Your task to perform on an android device: snooze an email in the gmail app Image 0: 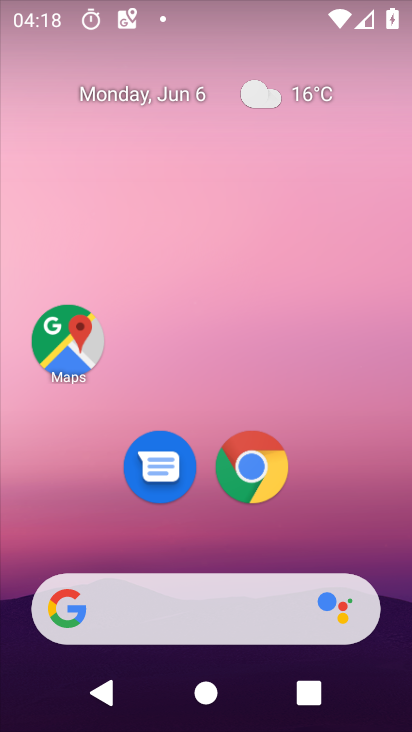
Step 0: drag from (215, 522) to (226, 18)
Your task to perform on an android device: snooze an email in the gmail app Image 1: 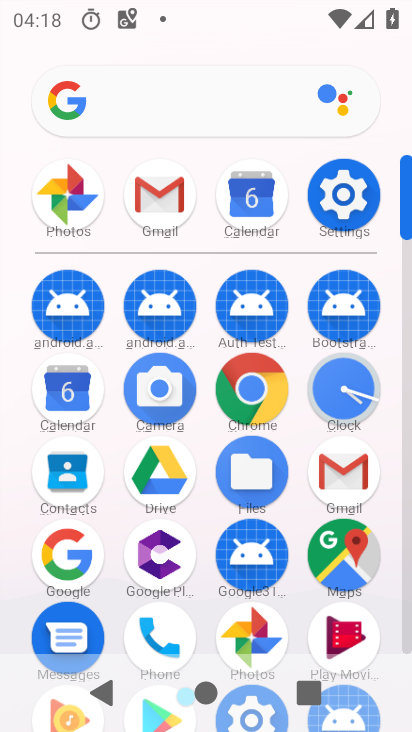
Step 1: click (343, 469)
Your task to perform on an android device: snooze an email in the gmail app Image 2: 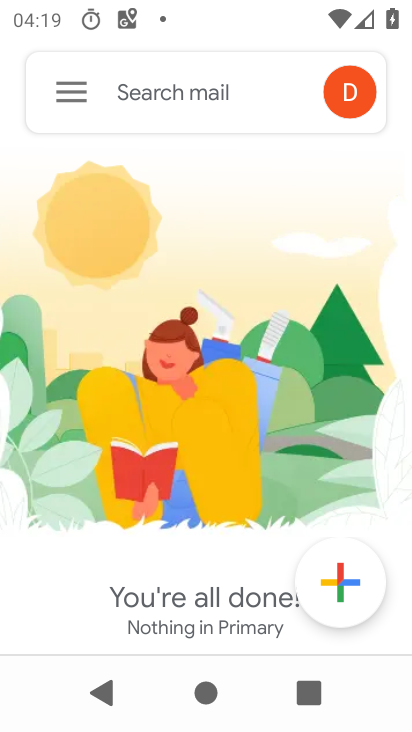
Step 2: task complete